Your task to perform on an android device: change the clock display to analog Image 0: 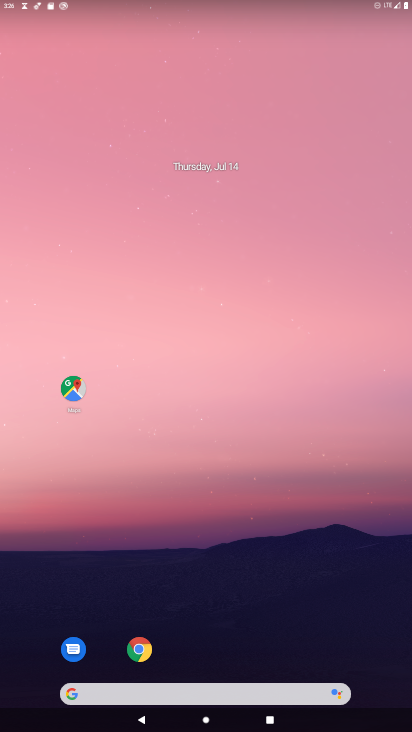
Step 0: drag from (272, 658) to (281, 156)
Your task to perform on an android device: change the clock display to analog Image 1: 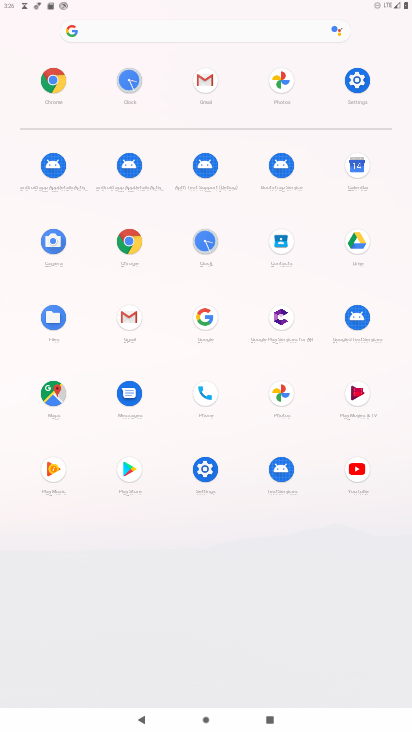
Step 1: click (208, 243)
Your task to perform on an android device: change the clock display to analog Image 2: 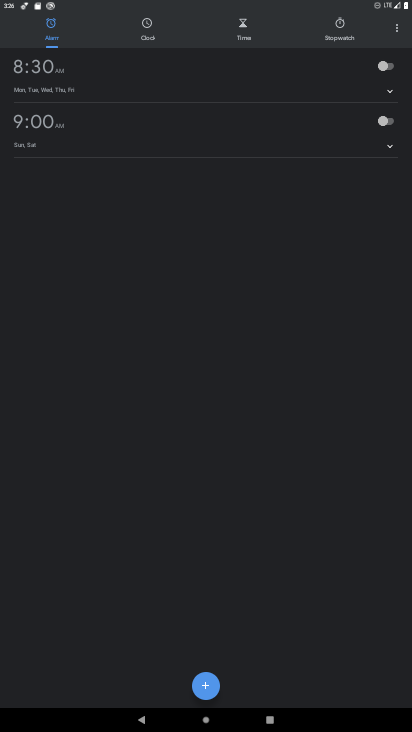
Step 2: click (399, 25)
Your task to perform on an android device: change the clock display to analog Image 3: 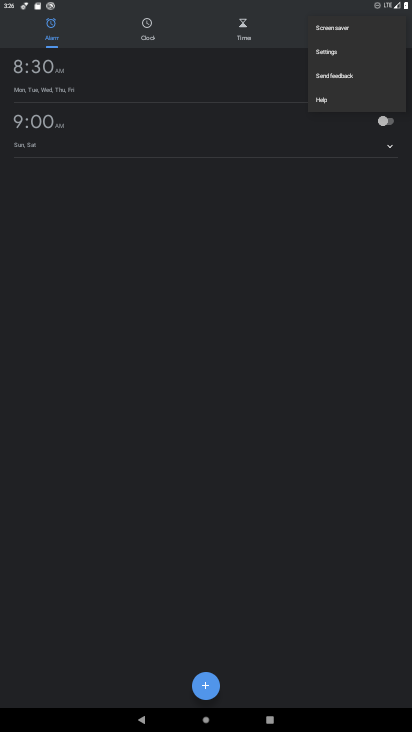
Step 3: click (319, 56)
Your task to perform on an android device: change the clock display to analog Image 4: 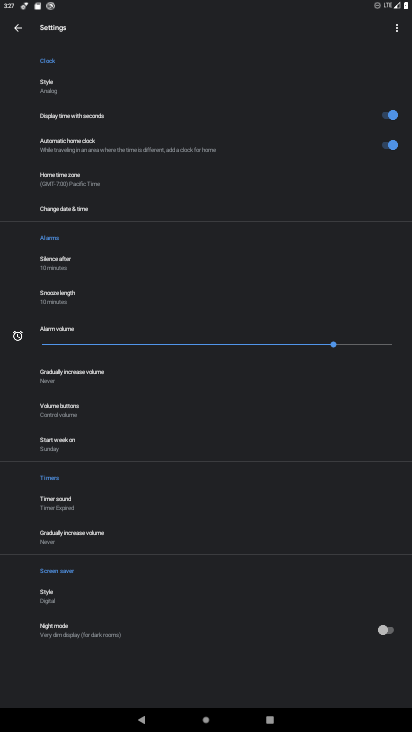
Step 4: click (80, 86)
Your task to perform on an android device: change the clock display to analog Image 5: 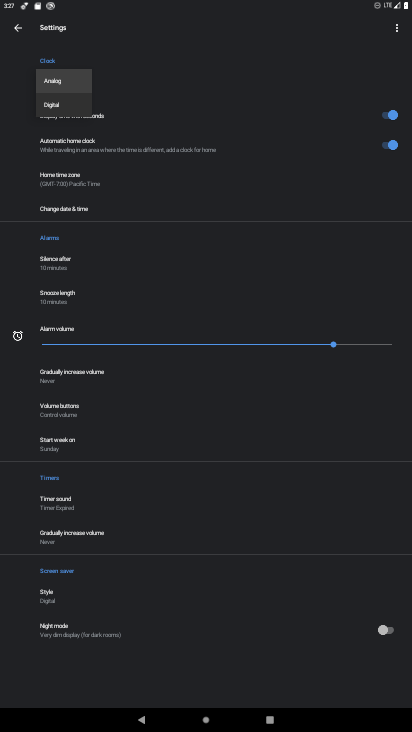
Step 5: task complete